Your task to perform on an android device: empty trash in google photos Image 0: 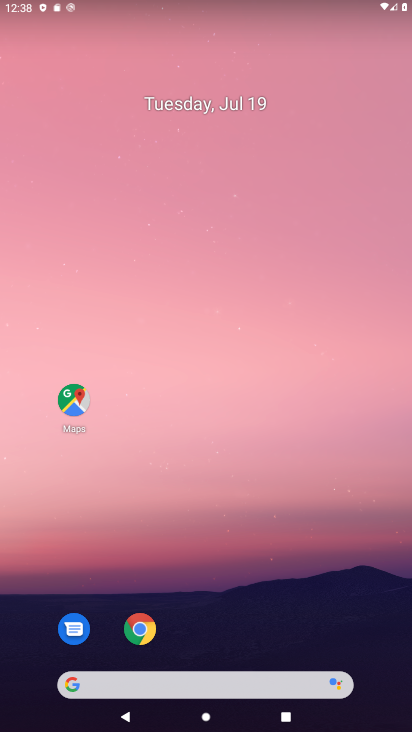
Step 0: drag from (303, 631) to (294, 42)
Your task to perform on an android device: empty trash in google photos Image 1: 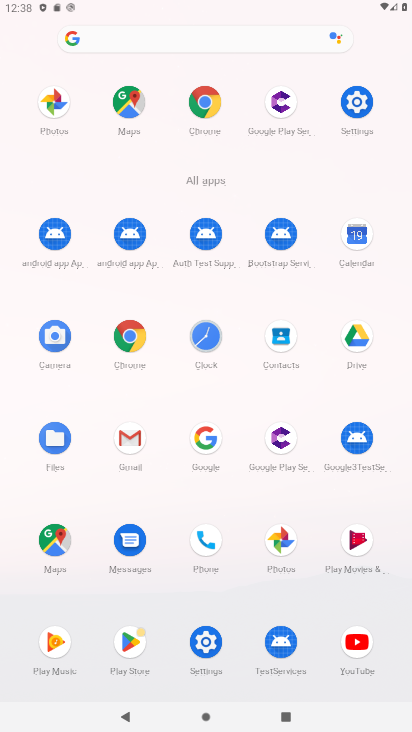
Step 1: click (281, 538)
Your task to perform on an android device: empty trash in google photos Image 2: 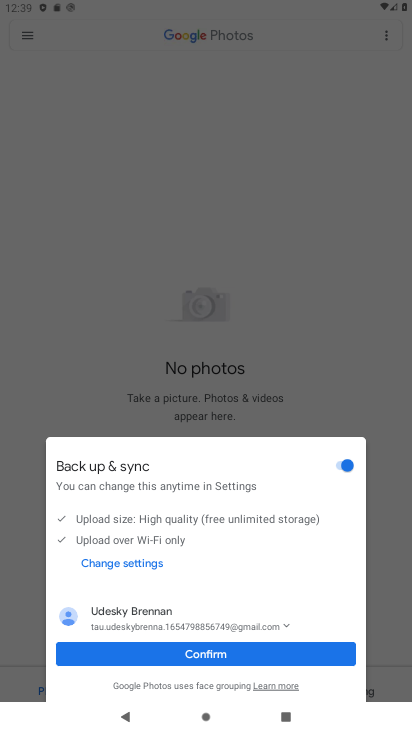
Step 2: click (160, 647)
Your task to perform on an android device: empty trash in google photos Image 3: 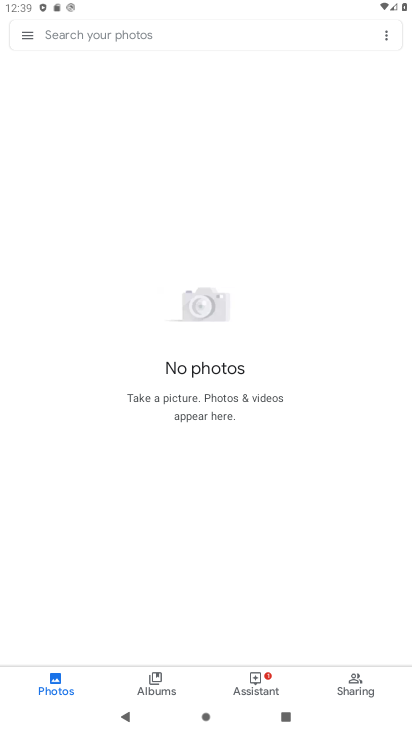
Step 3: click (30, 30)
Your task to perform on an android device: empty trash in google photos Image 4: 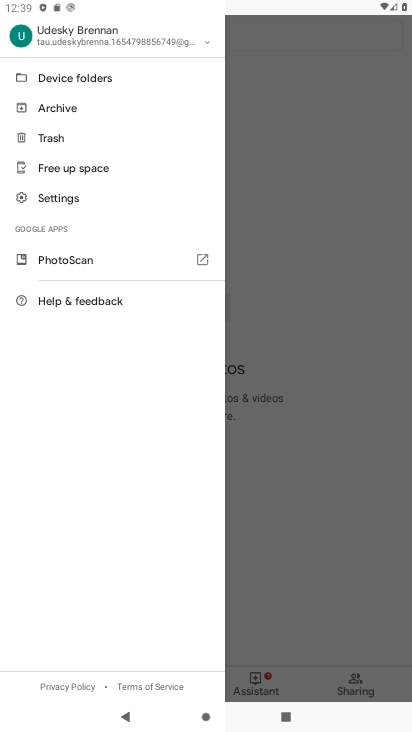
Step 4: click (54, 144)
Your task to perform on an android device: empty trash in google photos Image 5: 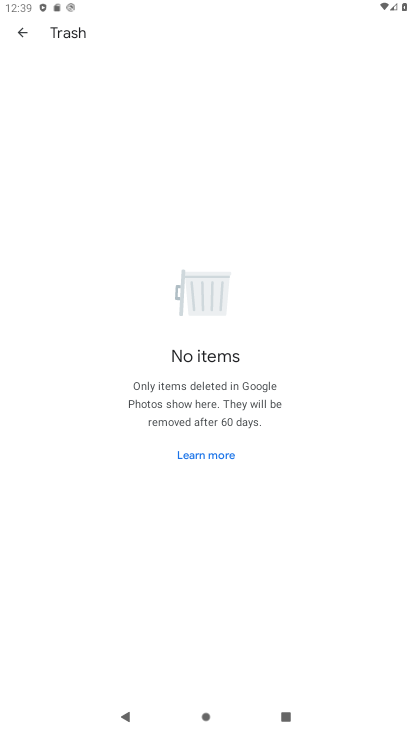
Step 5: task complete